Your task to perform on an android device: What's the weather going to be this weekend? Image 0: 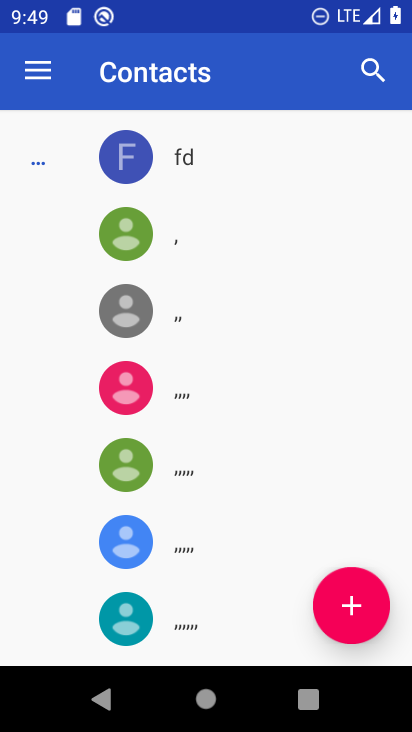
Step 0: drag from (207, 715) to (59, 693)
Your task to perform on an android device: What's the weather going to be this weekend? Image 1: 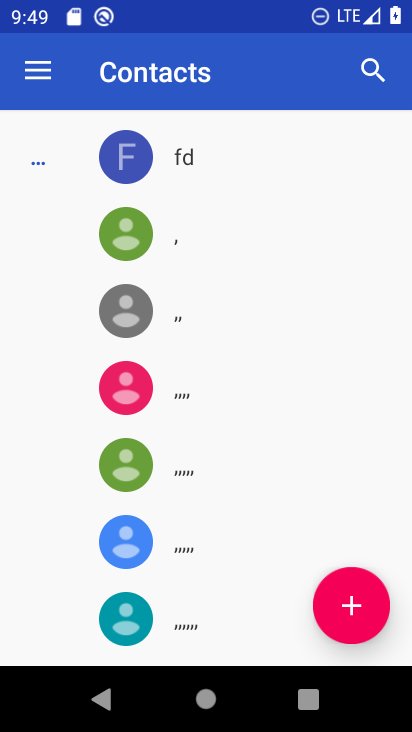
Step 1: press home button
Your task to perform on an android device: What's the weather going to be this weekend? Image 2: 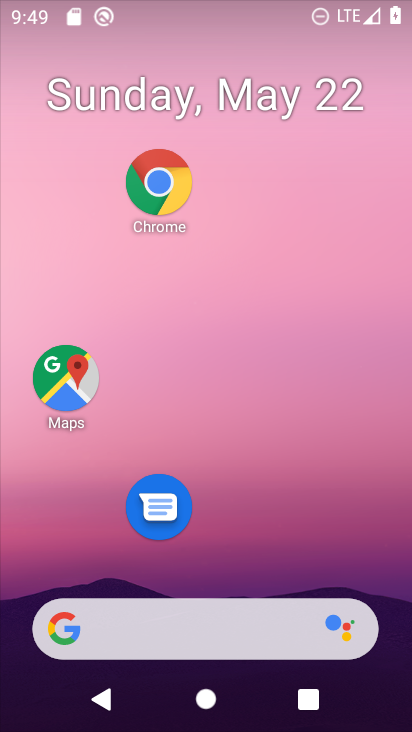
Step 2: click (238, 615)
Your task to perform on an android device: What's the weather going to be this weekend? Image 3: 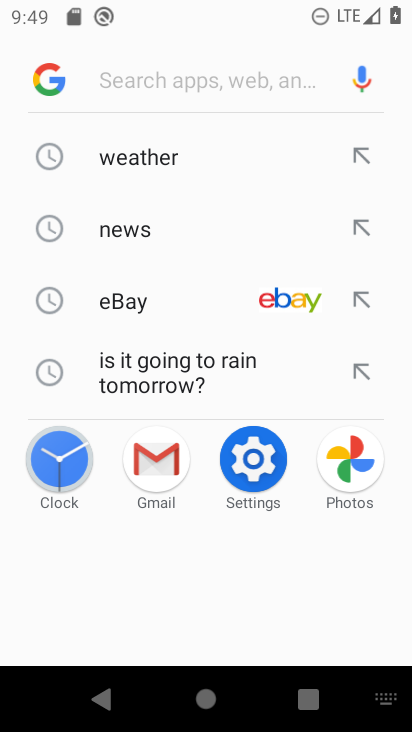
Step 3: type " What's the weather going to be this weekend?"
Your task to perform on an android device: What's the weather going to be this weekend? Image 4: 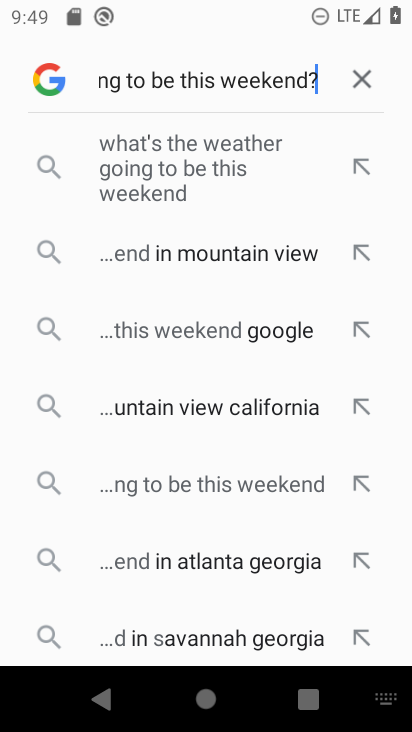
Step 4: click (206, 173)
Your task to perform on an android device: What's the weather going to be this weekend? Image 5: 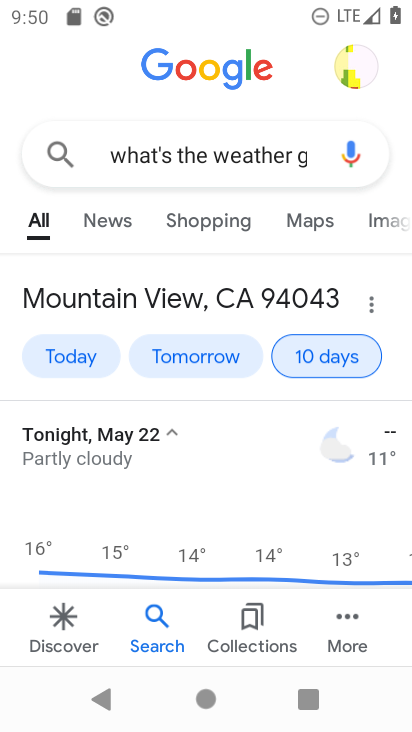
Step 5: task complete